Your task to perform on an android device: Open Google Maps Image 0: 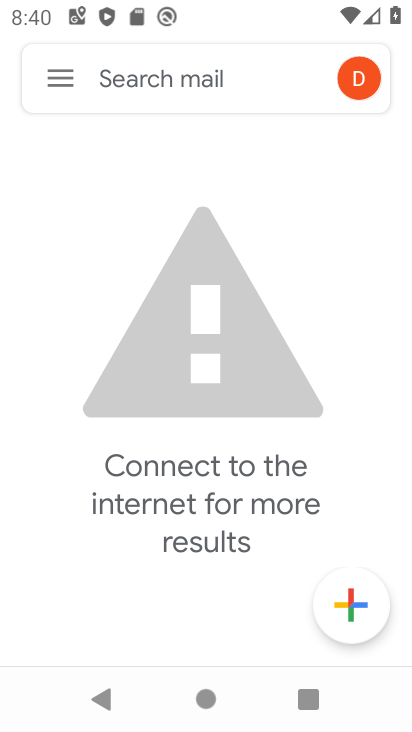
Step 0: press home button
Your task to perform on an android device: Open Google Maps Image 1: 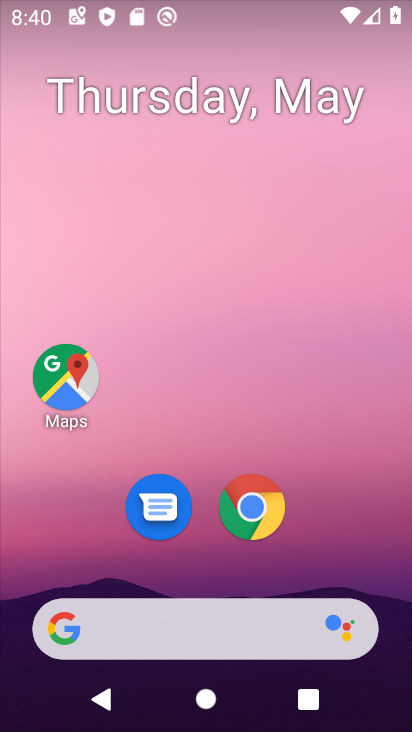
Step 1: drag from (353, 551) to (344, 147)
Your task to perform on an android device: Open Google Maps Image 2: 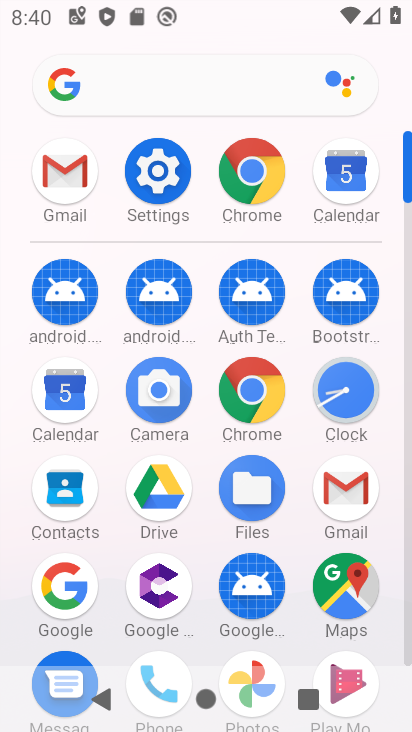
Step 2: click (335, 584)
Your task to perform on an android device: Open Google Maps Image 3: 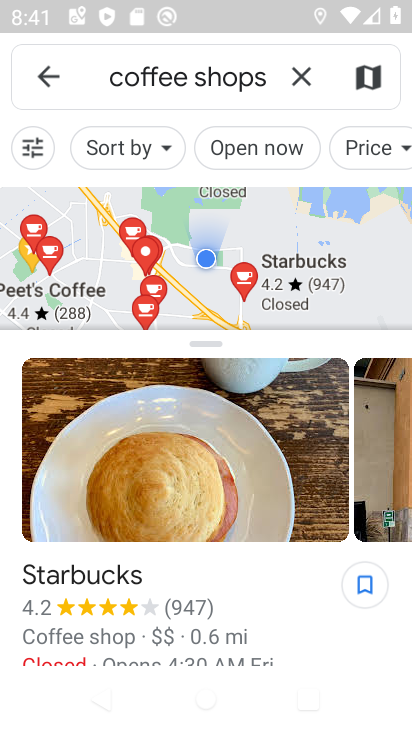
Step 3: task complete